Your task to perform on an android device: Search for usb-b on bestbuy.com, select the first entry, and add it to the cart. Image 0: 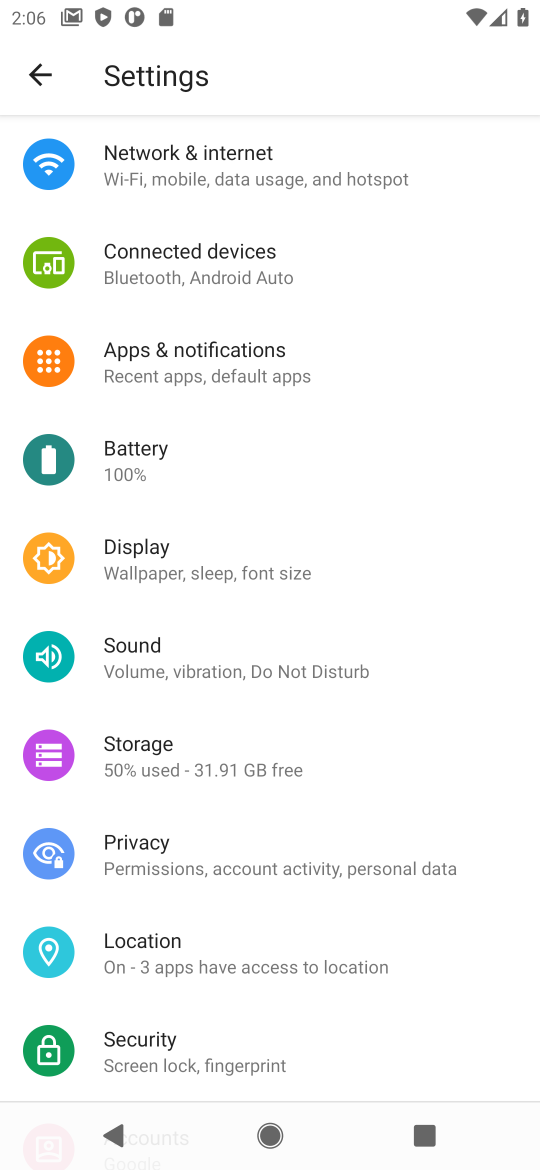
Step 0: press home button
Your task to perform on an android device: Search for usb-b on bestbuy.com, select the first entry, and add it to the cart. Image 1: 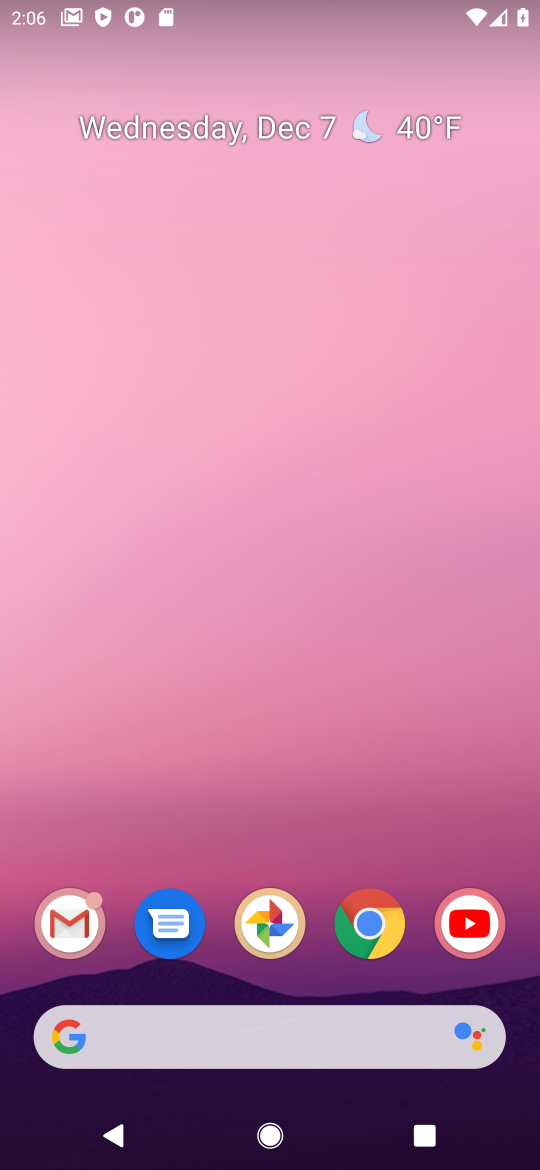
Step 1: click (353, 934)
Your task to perform on an android device: Search for usb-b on bestbuy.com, select the first entry, and add it to the cart. Image 2: 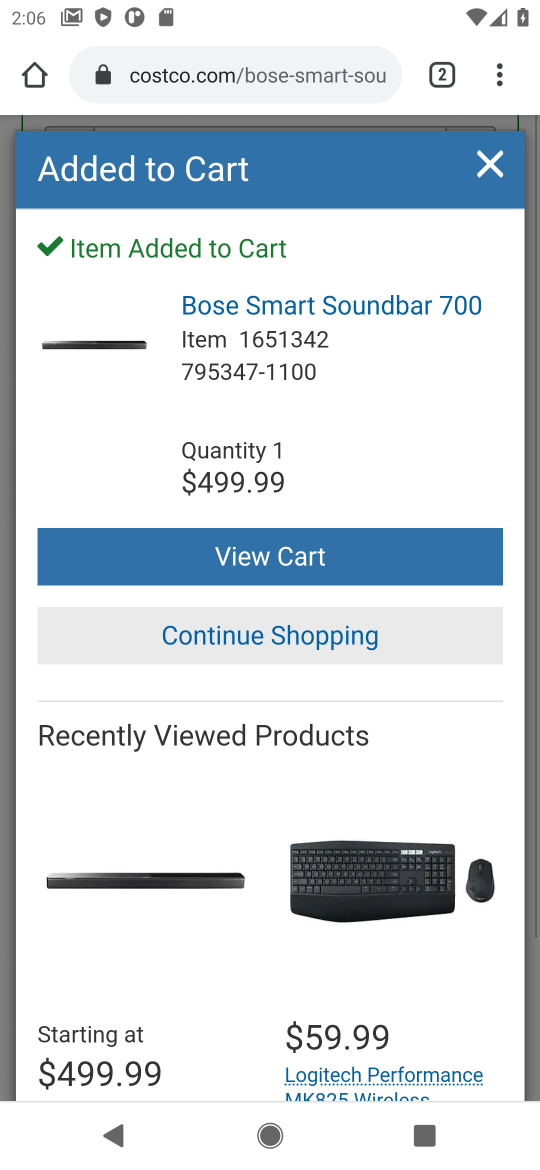
Step 2: click (243, 64)
Your task to perform on an android device: Search for usb-b on bestbuy.com, select the first entry, and add it to the cart. Image 3: 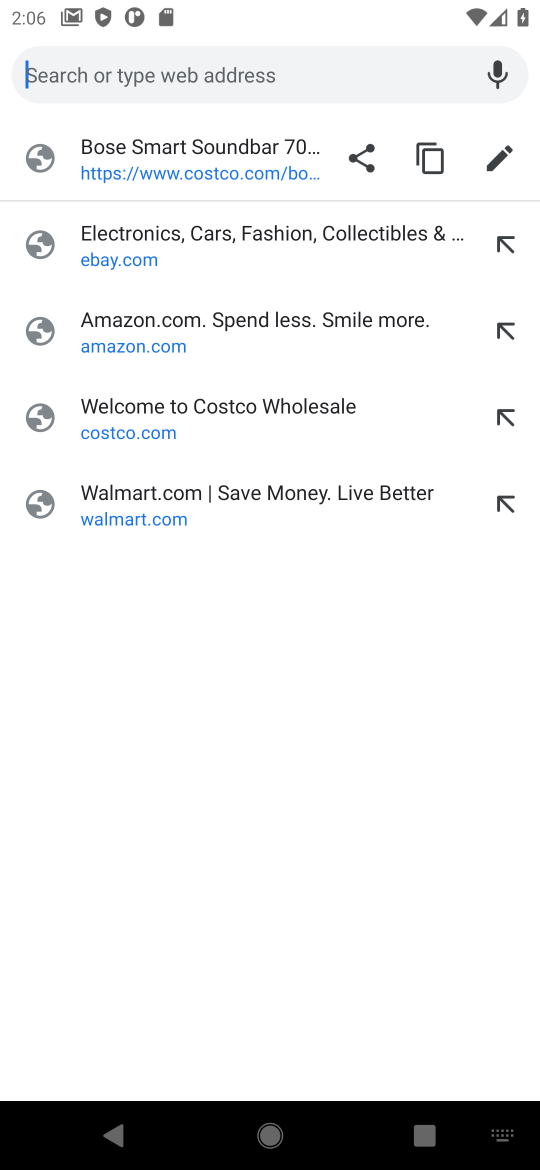
Step 3: type "bestbuy"
Your task to perform on an android device: Search for usb-b on bestbuy.com, select the first entry, and add it to the cart. Image 4: 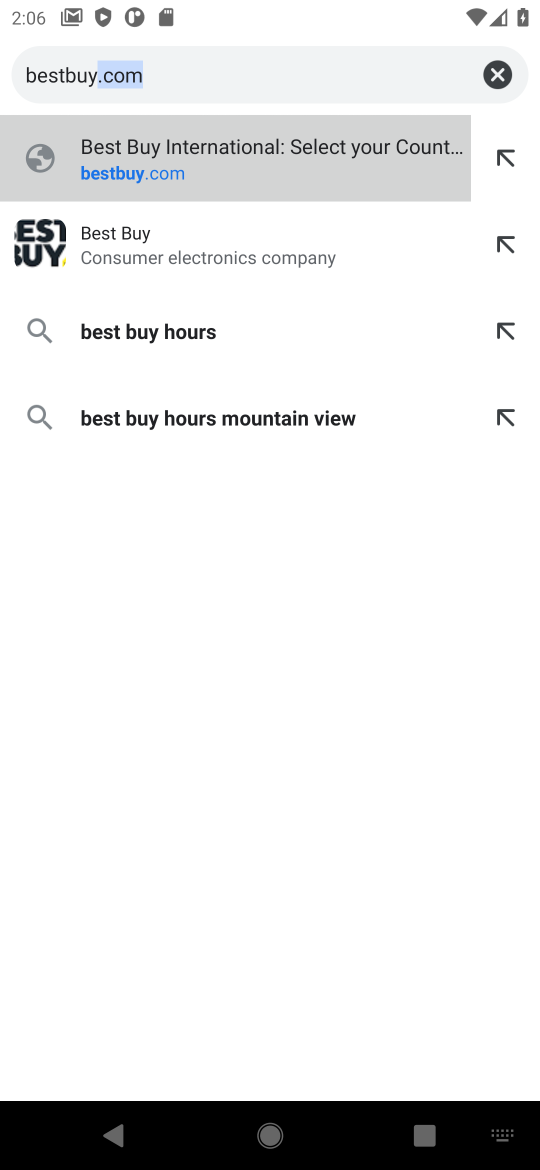
Step 4: click (132, 171)
Your task to perform on an android device: Search for usb-b on bestbuy.com, select the first entry, and add it to the cart. Image 5: 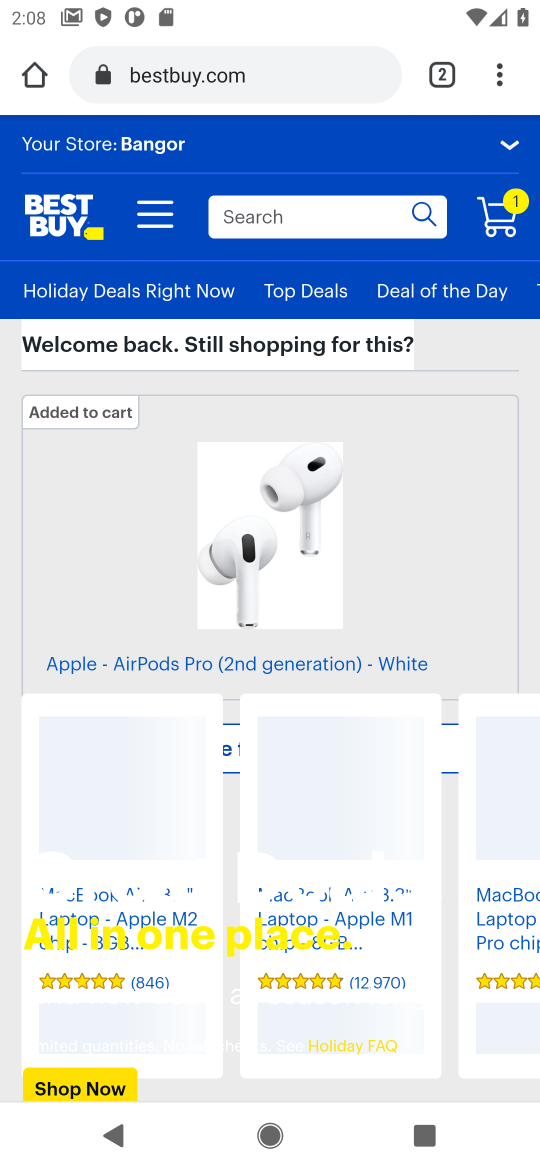
Step 5: click (317, 213)
Your task to perform on an android device: Search for usb-b on bestbuy.com, select the first entry, and add it to the cart. Image 6: 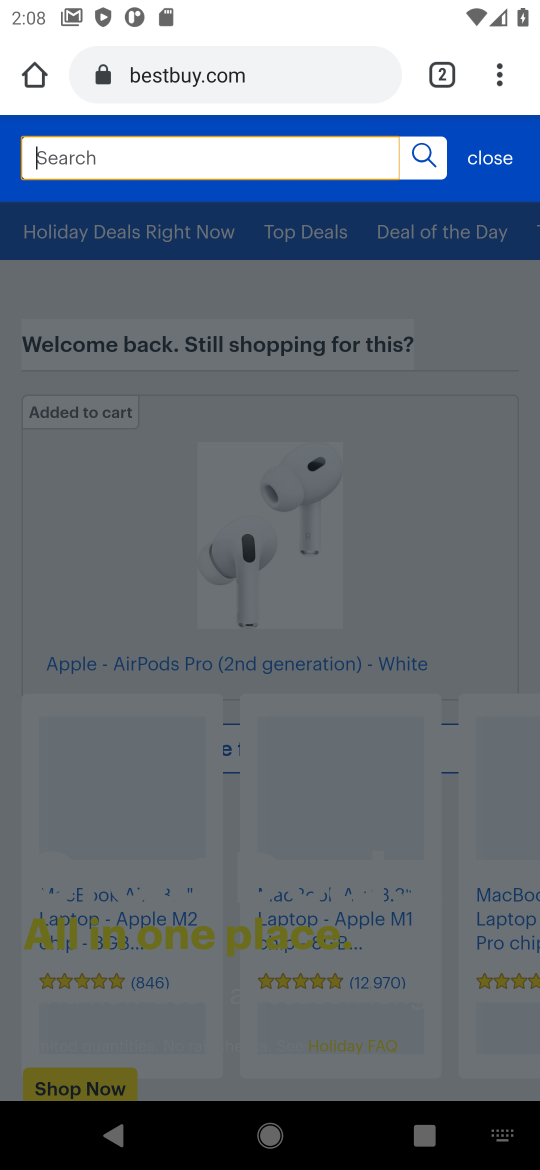
Step 6: type "usb-b"
Your task to perform on an android device: Search for usb-b on bestbuy.com, select the first entry, and add it to the cart. Image 7: 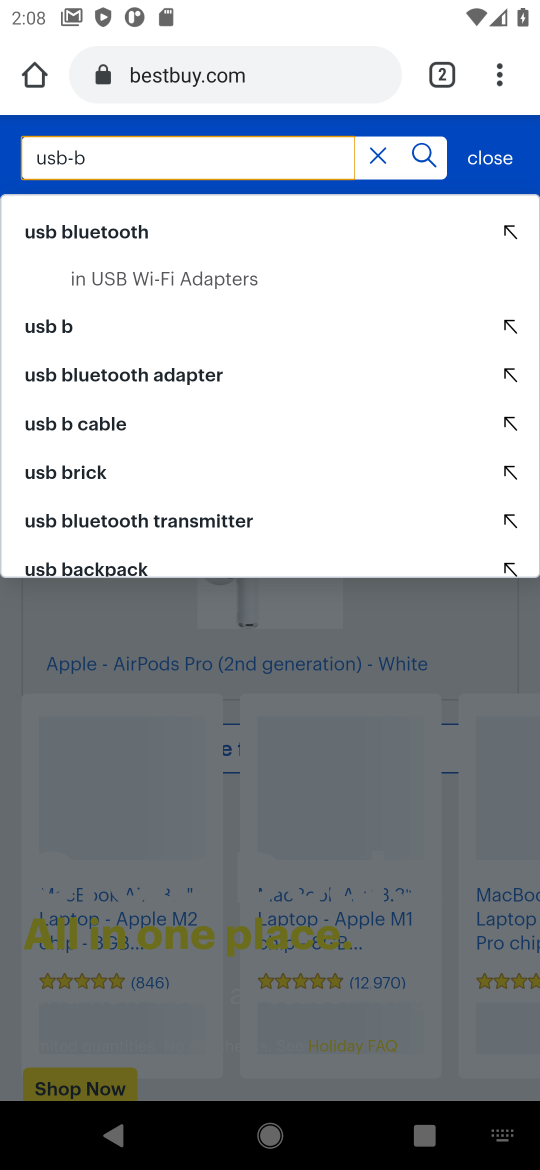
Step 7: click (95, 233)
Your task to perform on an android device: Search for usb-b on bestbuy.com, select the first entry, and add it to the cart. Image 8: 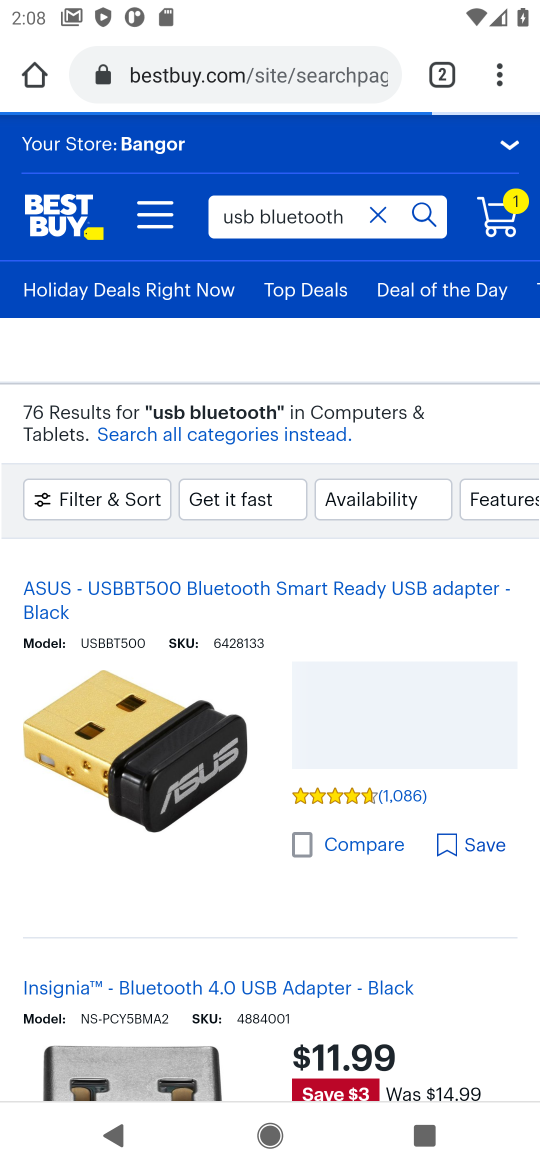
Step 8: click (187, 780)
Your task to perform on an android device: Search for usb-b on bestbuy.com, select the first entry, and add it to the cart. Image 9: 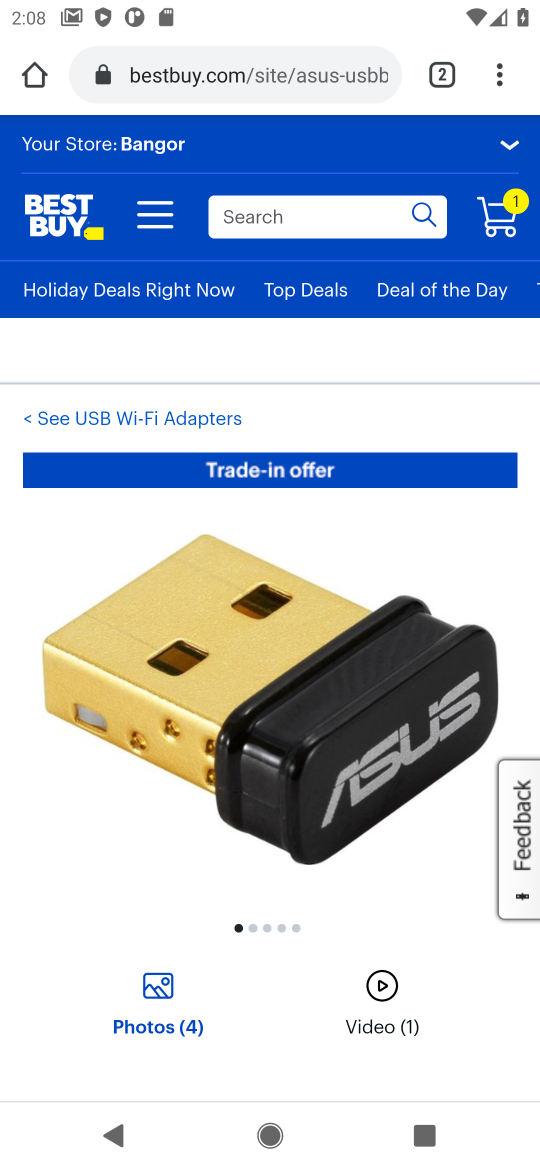
Step 9: drag from (320, 912) to (205, 158)
Your task to perform on an android device: Search for usb-b on bestbuy.com, select the first entry, and add it to the cart. Image 10: 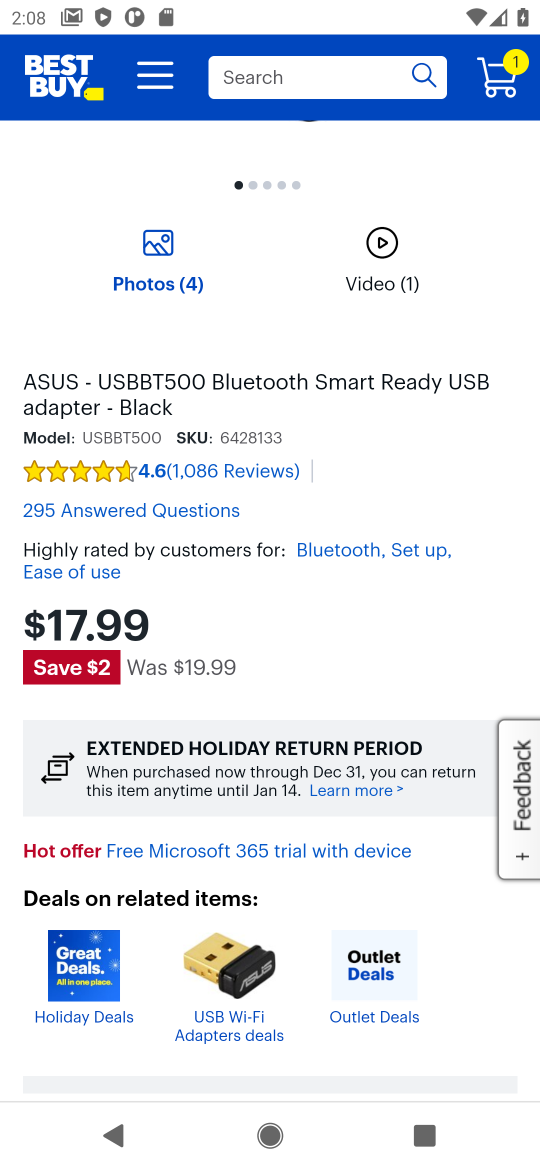
Step 10: drag from (412, 910) to (287, 195)
Your task to perform on an android device: Search for usb-b on bestbuy.com, select the first entry, and add it to the cart. Image 11: 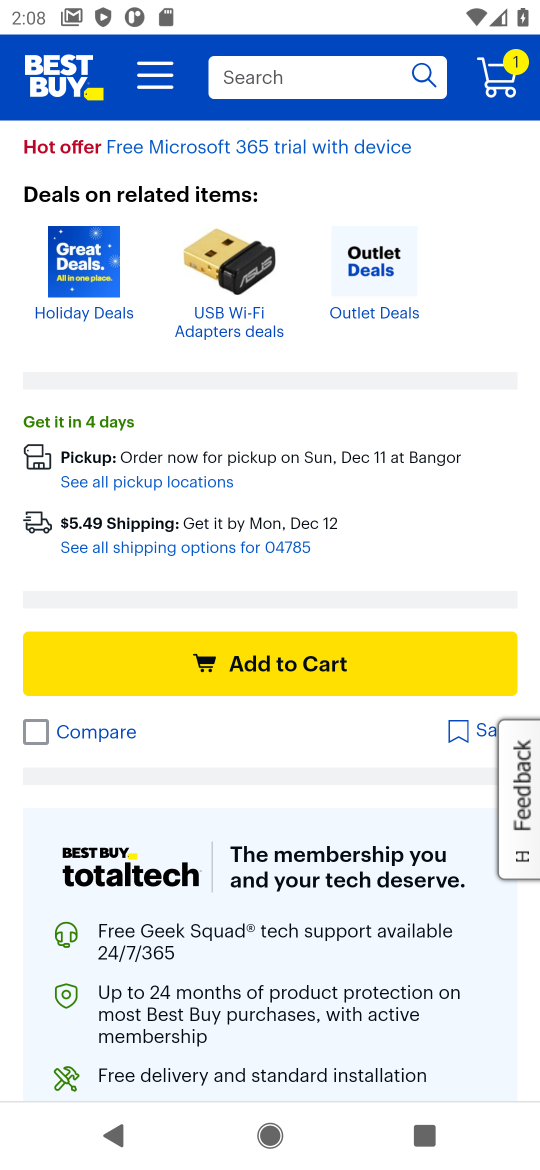
Step 11: click (277, 669)
Your task to perform on an android device: Search for usb-b on bestbuy.com, select the first entry, and add it to the cart. Image 12: 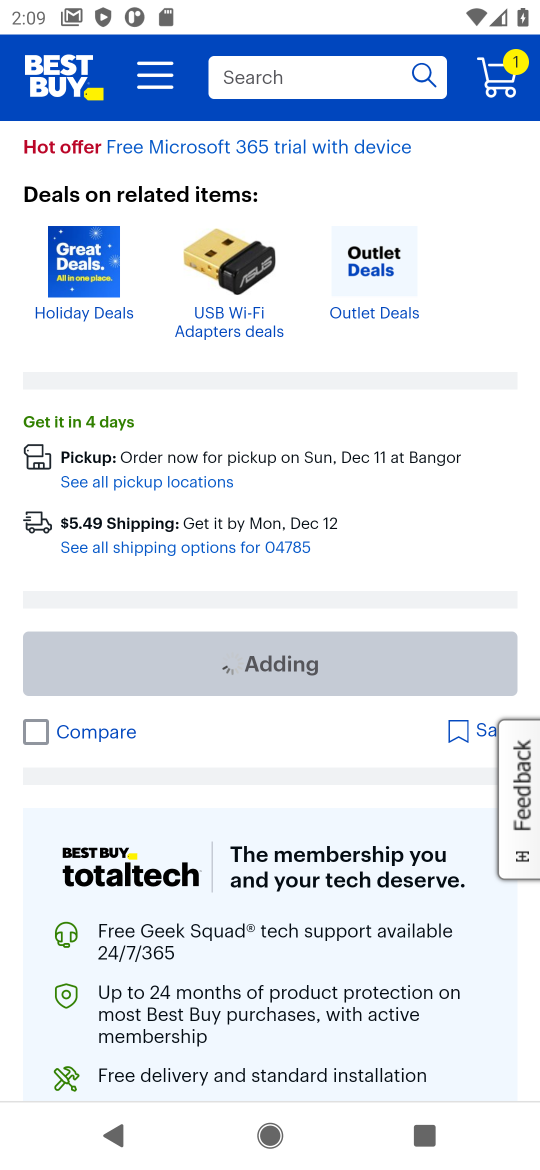
Step 12: task complete